Your task to perform on an android device: Search for pizza restaurants on Maps Image 0: 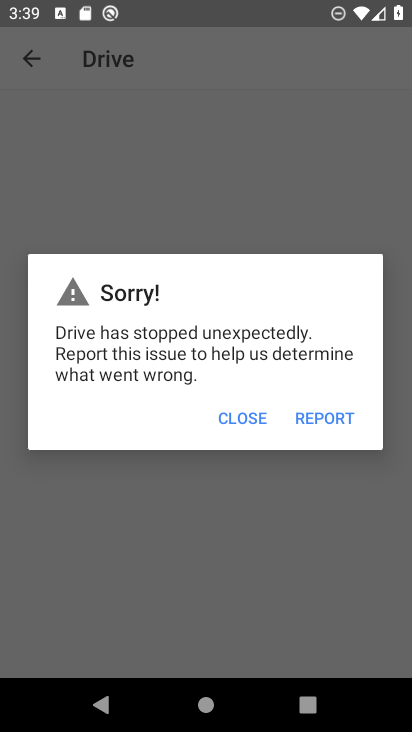
Step 0: press home button
Your task to perform on an android device: Search for pizza restaurants on Maps Image 1: 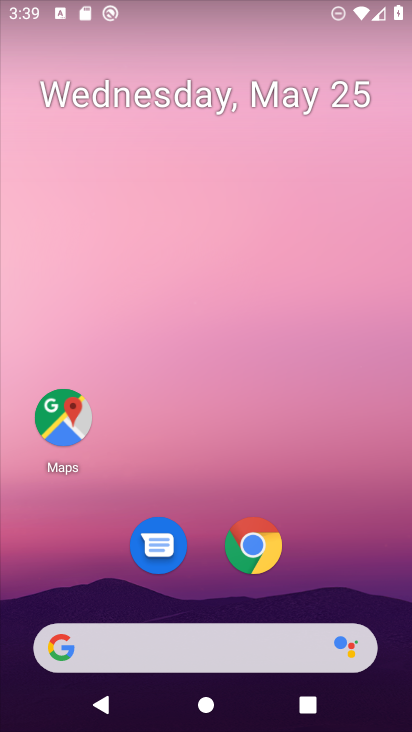
Step 1: drag from (353, 568) to (341, 201)
Your task to perform on an android device: Search for pizza restaurants on Maps Image 2: 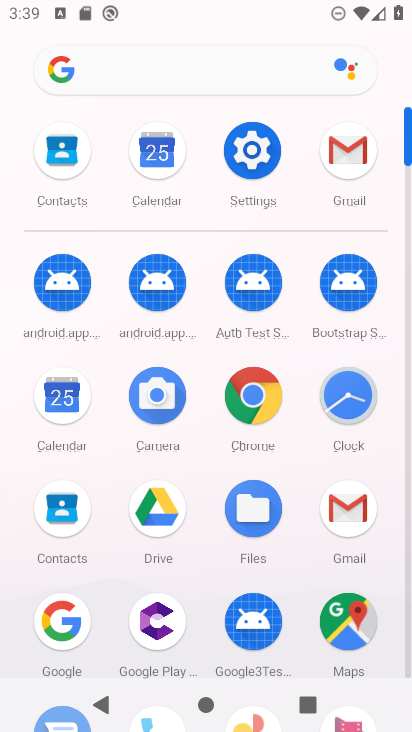
Step 2: click (344, 601)
Your task to perform on an android device: Search for pizza restaurants on Maps Image 3: 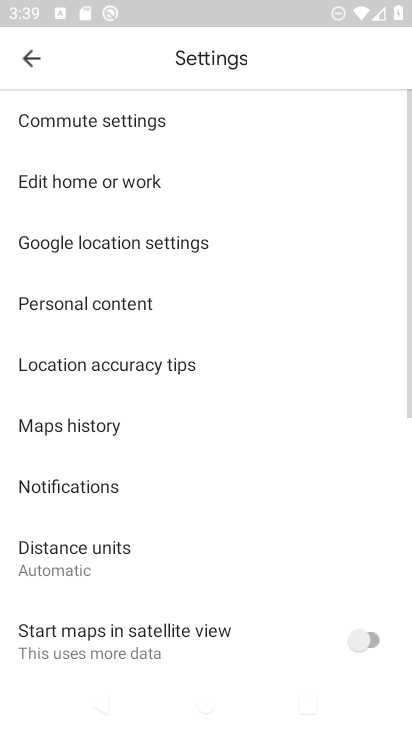
Step 3: click (15, 57)
Your task to perform on an android device: Search for pizza restaurants on Maps Image 4: 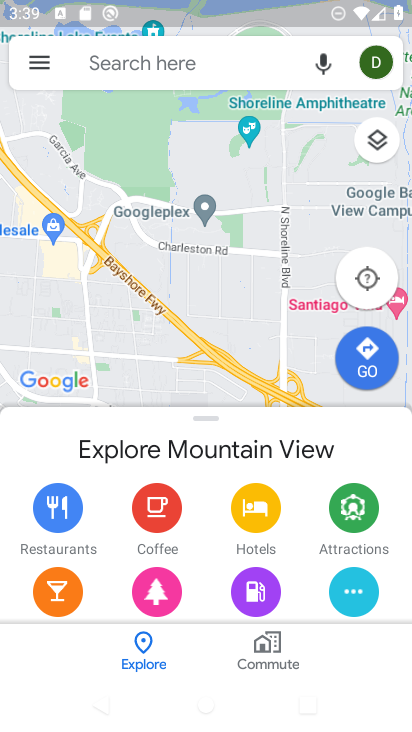
Step 4: click (143, 76)
Your task to perform on an android device: Search for pizza restaurants on Maps Image 5: 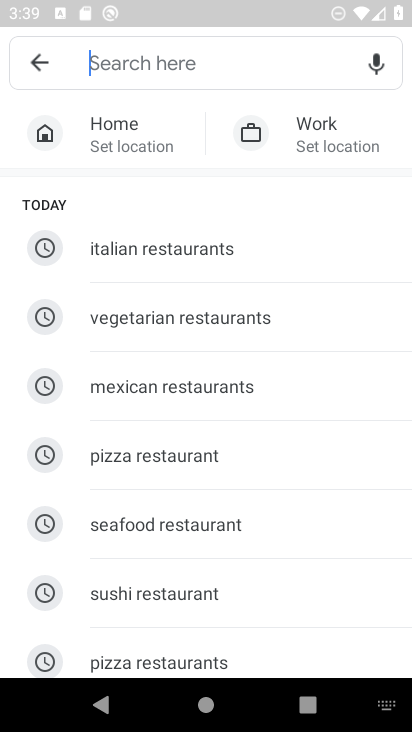
Step 5: click (195, 465)
Your task to perform on an android device: Search for pizza restaurants on Maps Image 6: 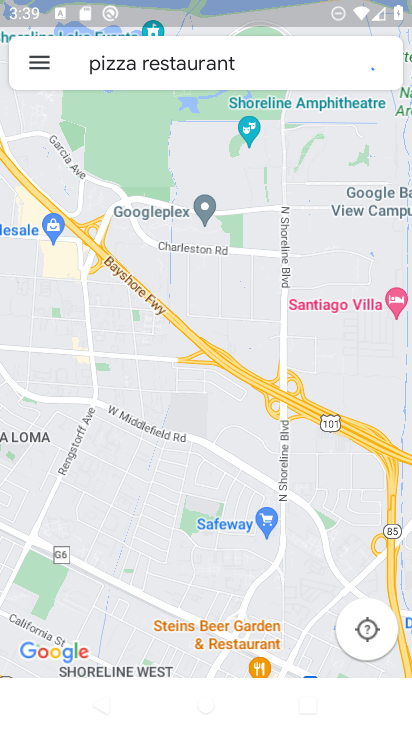
Step 6: task complete